Your task to perform on an android device: Turn on the flashlight Image 0: 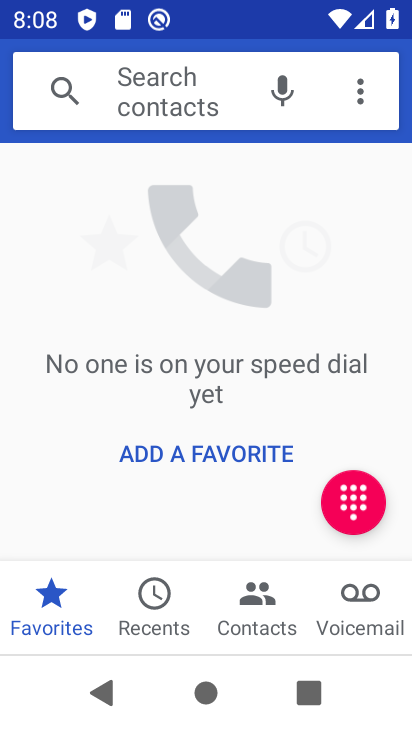
Step 0: drag from (194, 56) to (255, 570)
Your task to perform on an android device: Turn on the flashlight Image 1: 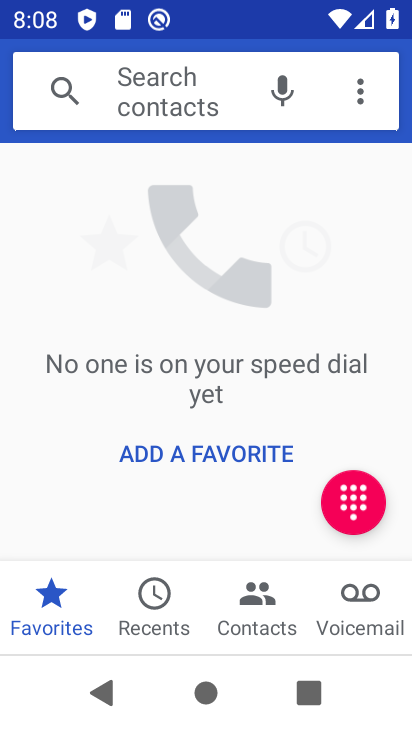
Step 1: task complete